Your task to perform on an android device: install app "Move to iOS" Image 0: 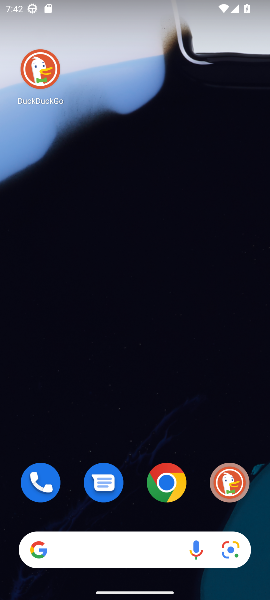
Step 0: drag from (140, 519) to (167, 10)
Your task to perform on an android device: install app "Move to iOS" Image 1: 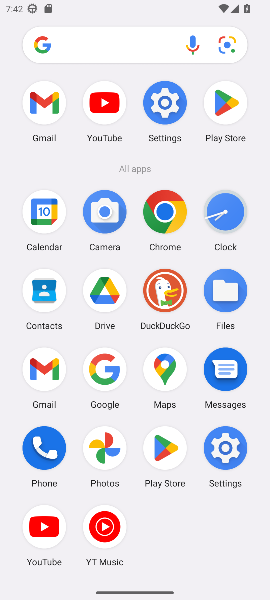
Step 1: click (166, 457)
Your task to perform on an android device: install app "Move to iOS" Image 2: 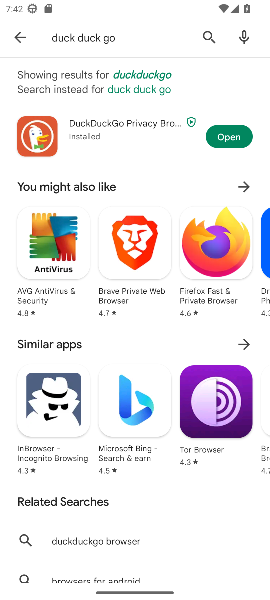
Step 2: click (136, 33)
Your task to perform on an android device: install app "Move to iOS" Image 3: 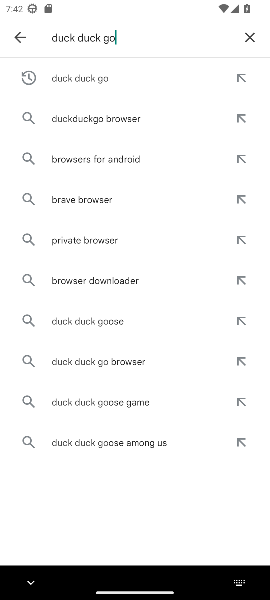
Step 3: click (252, 39)
Your task to perform on an android device: install app "Move to iOS" Image 4: 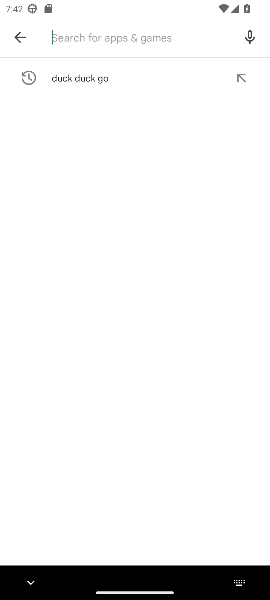
Step 4: type "move to IOS"
Your task to perform on an android device: install app "Move to iOS" Image 5: 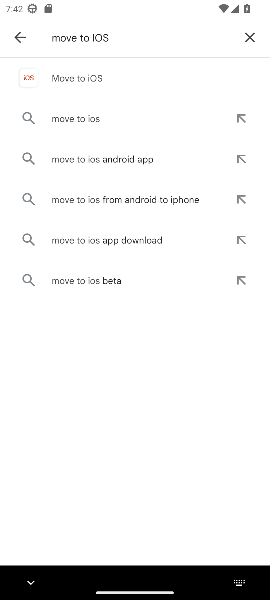
Step 5: click (72, 81)
Your task to perform on an android device: install app "Move to iOS" Image 6: 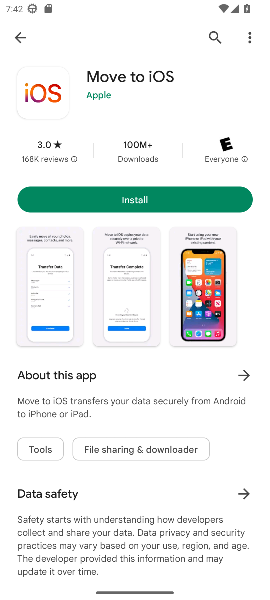
Step 6: click (206, 193)
Your task to perform on an android device: install app "Move to iOS" Image 7: 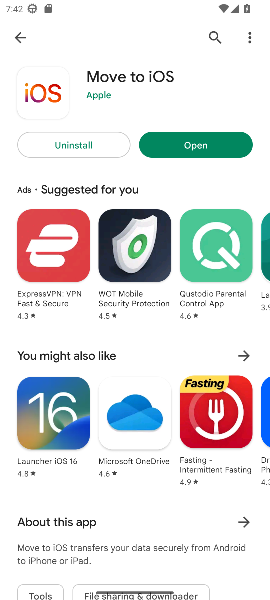
Step 7: task complete